Your task to perform on an android device: Open the web browser Image 0: 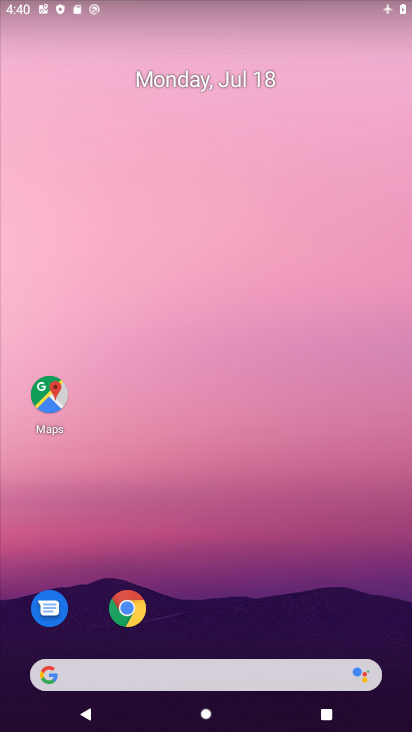
Step 0: drag from (240, 552) to (254, 54)
Your task to perform on an android device: Open the web browser Image 1: 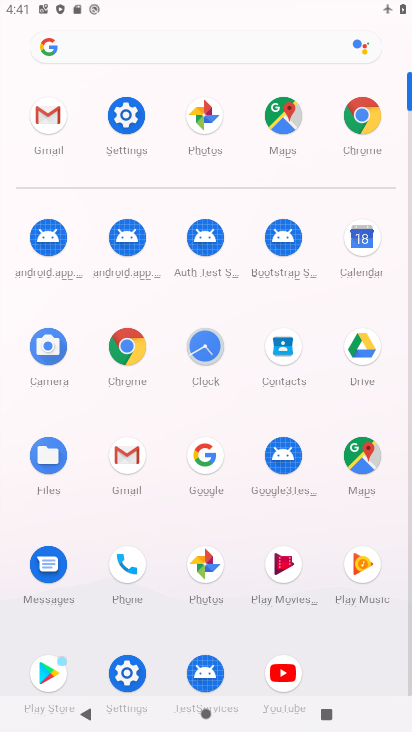
Step 1: click (126, 343)
Your task to perform on an android device: Open the web browser Image 2: 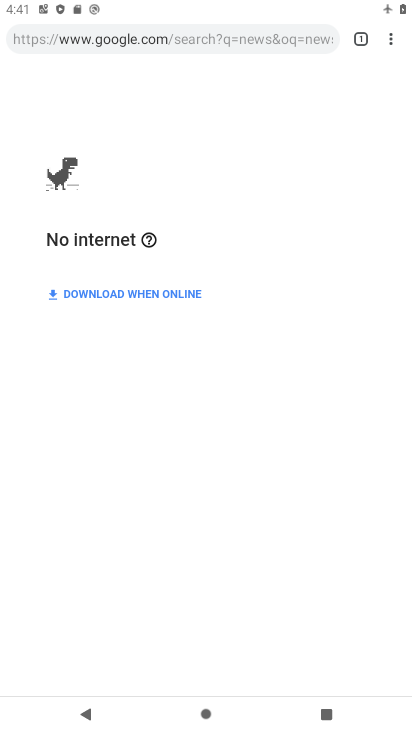
Step 2: task complete